Your task to perform on an android device: turn off picture-in-picture Image 0: 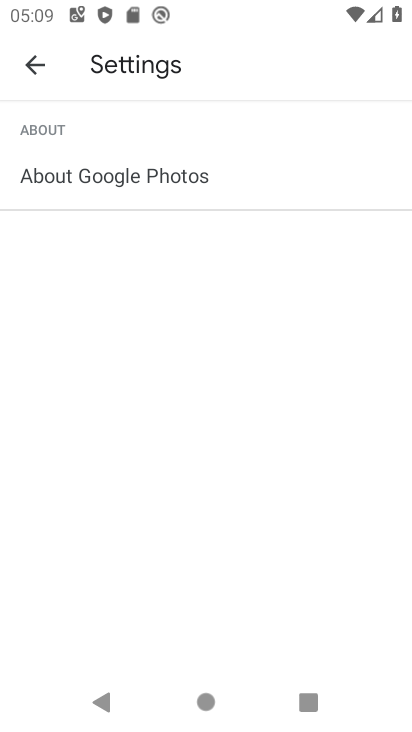
Step 0: press home button
Your task to perform on an android device: turn off picture-in-picture Image 1: 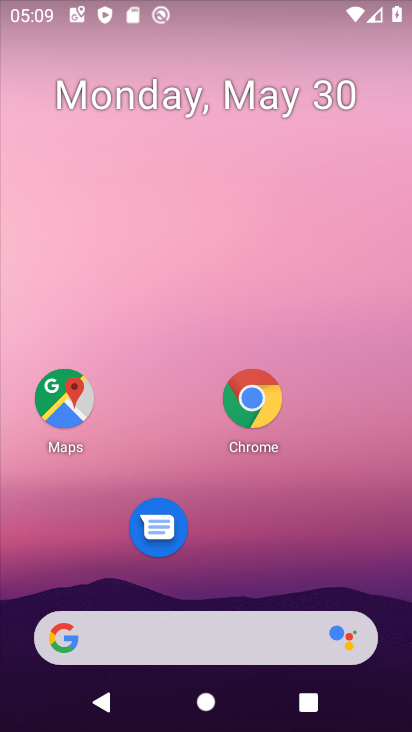
Step 1: drag from (231, 723) to (263, 8)
Your task to perform on an android device: turn off picture-in-picture Image 2: 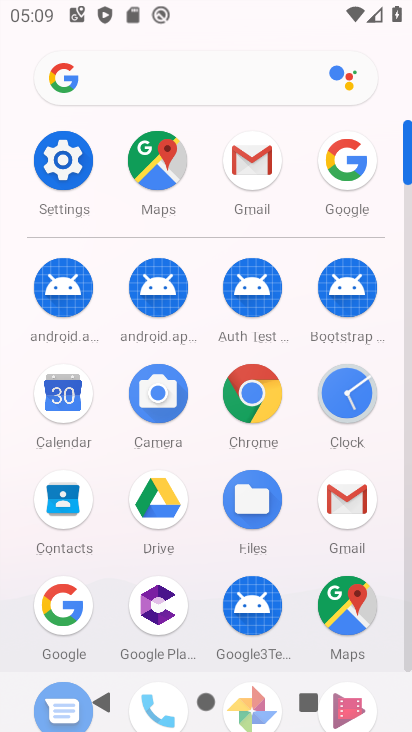
Step 2: click (65, 164)
Your task to perform on an android device: turn off picture-in-picture Image 3: 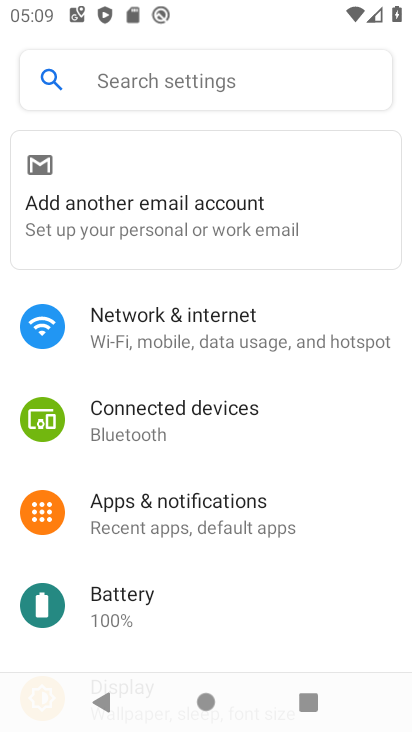
Step 3: drag from (228, 436) to (227, 203)
Your task to perform on an android device: turn off picture-in-picture Image 4: 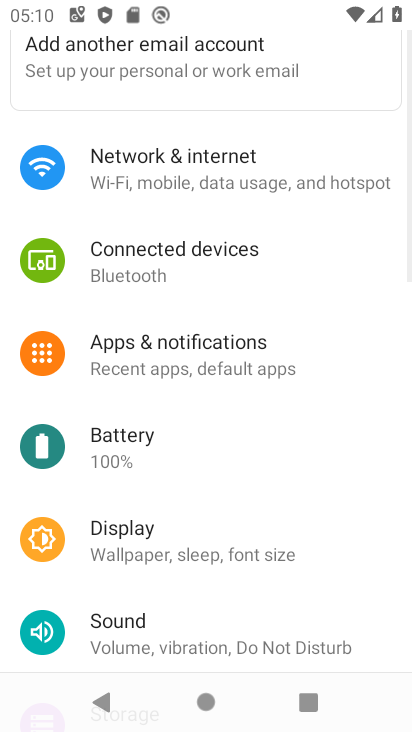
Step 4: drag from (221, 527) to (223, 170)
Your task to perform on an android device: turn off picture-in-picture Image 5: 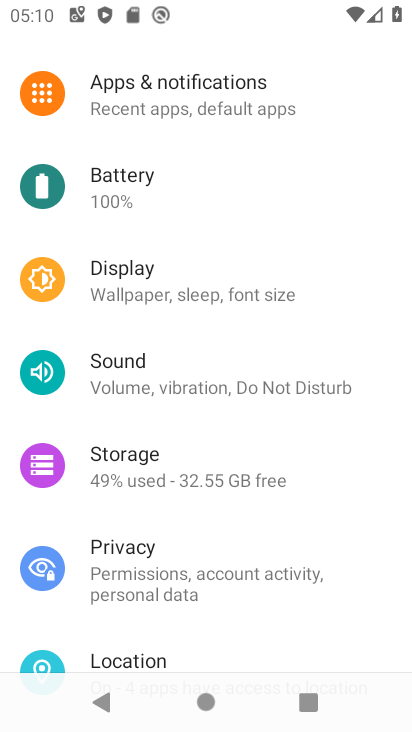
Step 5: click (190, 97)
Your task to perform on an android device: turn off picture-in-picture Image 6: 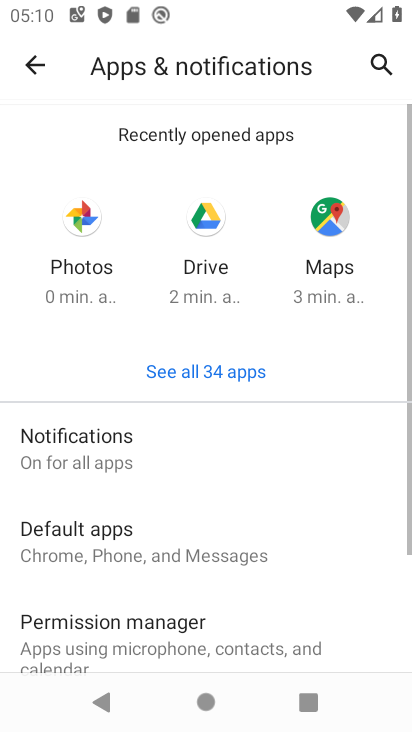
Step 6: drag from (239, 629) to (243, 298)
Your task to perform on an android device: turn off picture-in-picture Image 7: 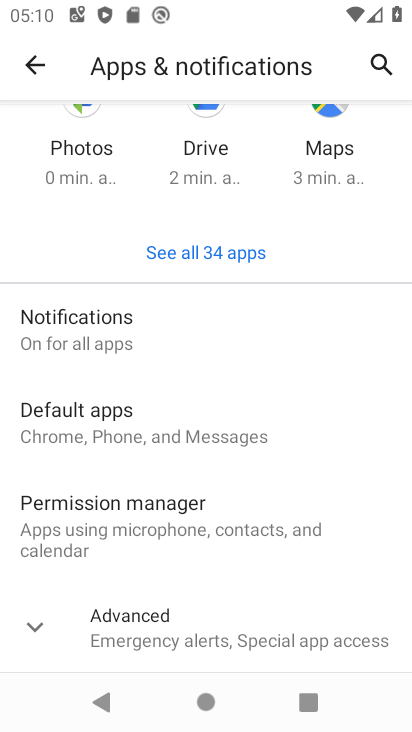
Step 7: click (152, 632)
Your task to perform on an android device: turn off picture-in-picture Image 8: 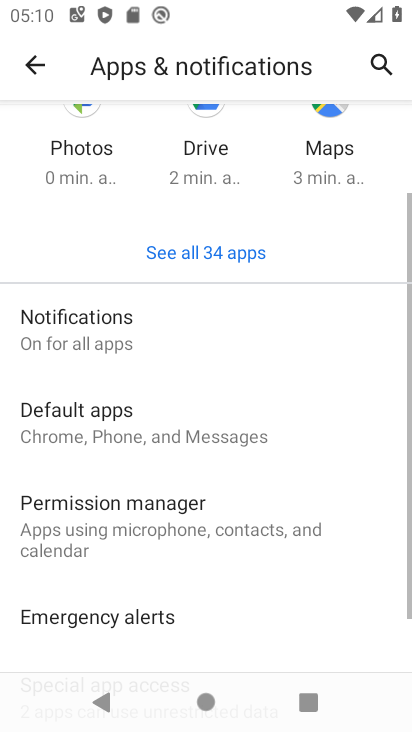
Step 8: drag from (252, 449) to (252, 250)
Your task to perform on an android device: turn off picture-in-picture Image 9: 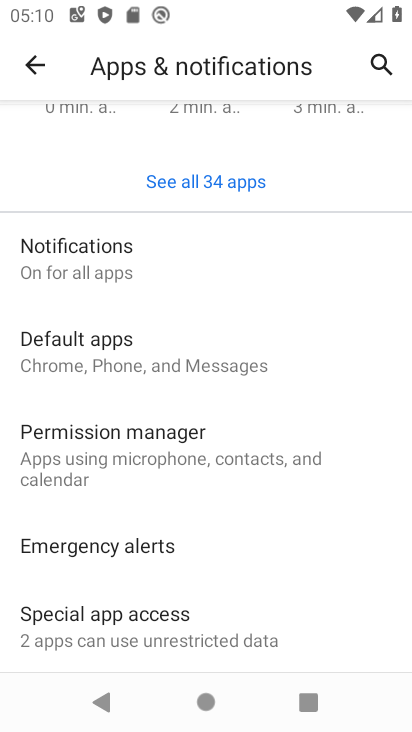
Step 9: click (101, 619)
Your task to perform on an android device: turn off picture-in-picture Image 10: 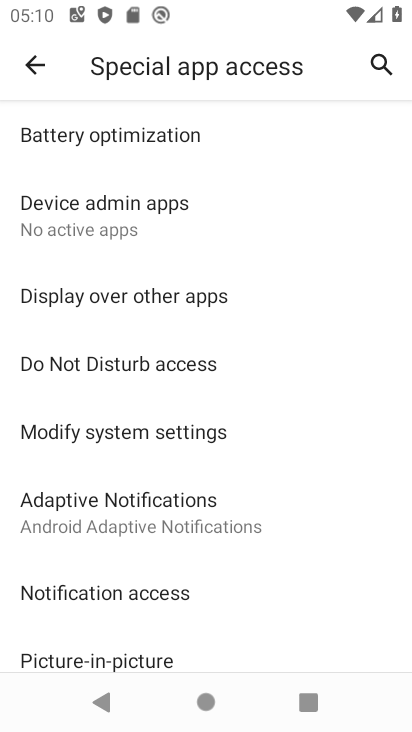
Step 10: click (129, 656)
Your task to perform on an android device: turn off picture-in-picture Image 11: 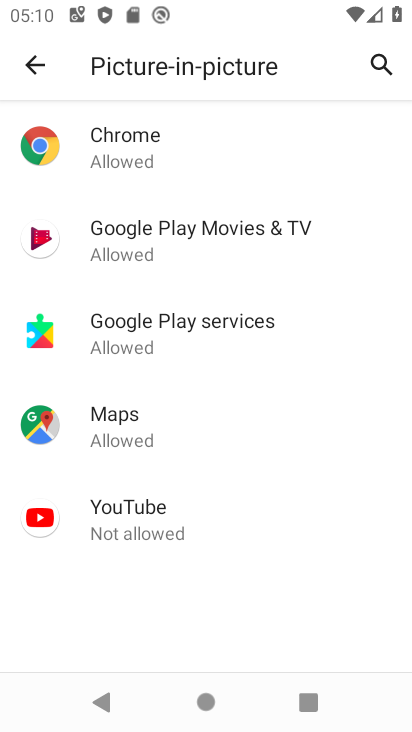
Step 11: click (141, 519)
Your task to perform on an android device: turn off picture-in-picture Image 12: 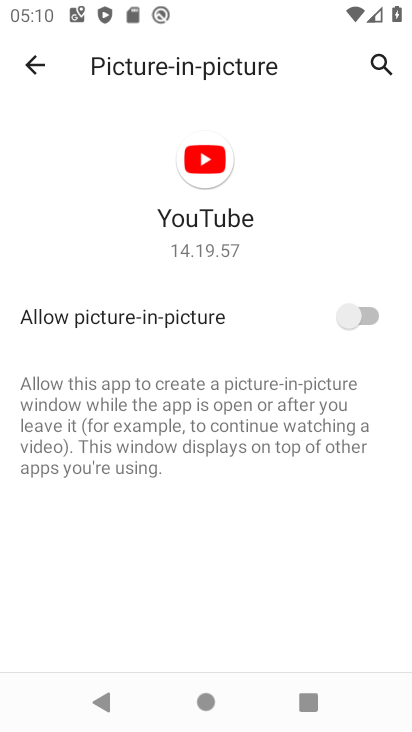
Step 12: task complete